Your task to perform on an android device: What's on my calendar tomorrow? Image 0: 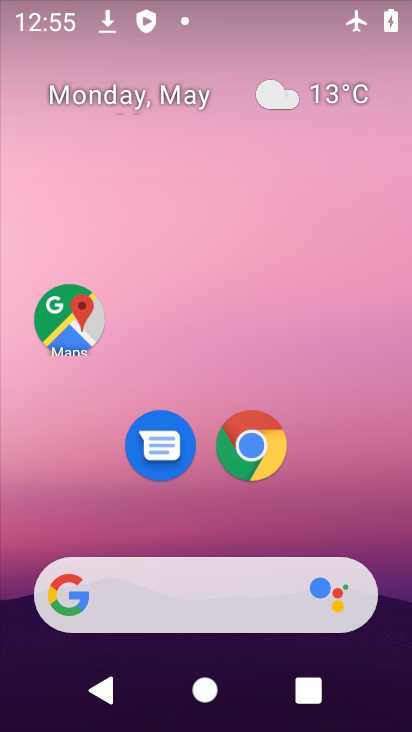
Step 0: click (238, 0)
Your task to perform on an android device: What's on my calendar tomorrow? Image 1: 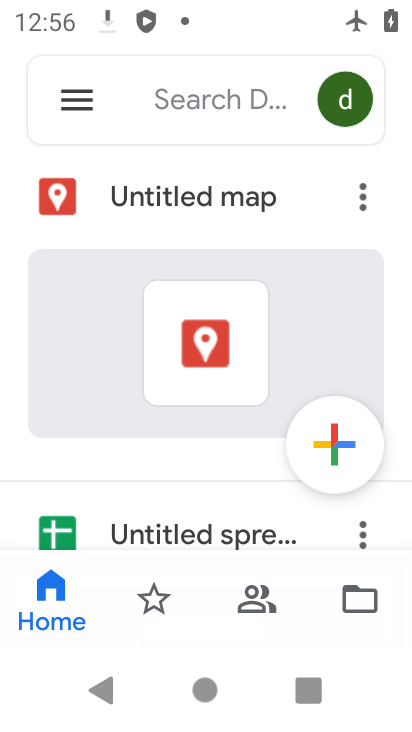
Step 1: press home button
Your task to perform on an android device: What's on my calendar tomorrow? Image 2: 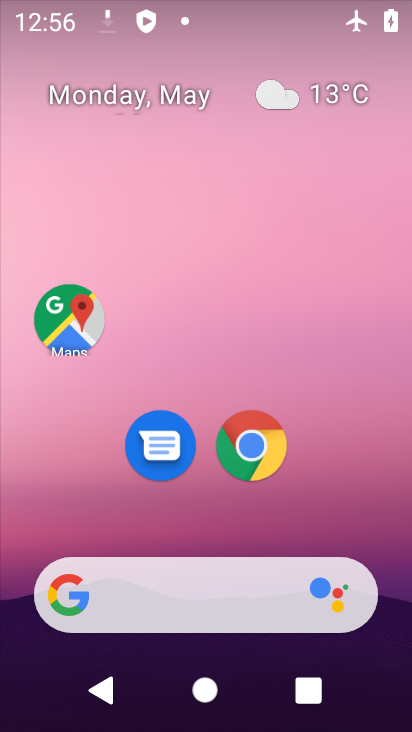
Step 2: drag from (274, 496) to (104, 7)
Your task to perform on an android device: What's on my calendar tomorrow? Image 3: 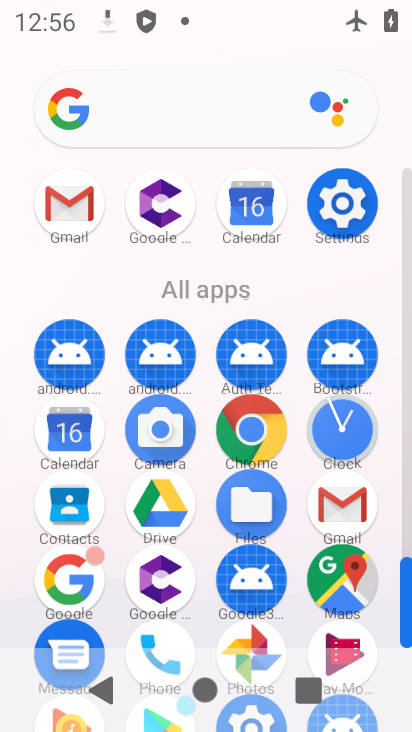
Step 3: click (339, 213)
Your task to perform on an android device: What's on my calendar tomorrow? Image 4: 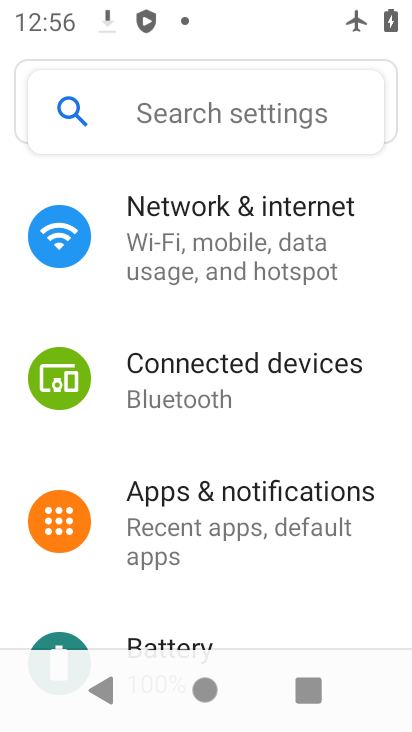
Step 4: task complete